Your task to perform on an android device: Open the Play Movies app and select the watchlist tab. Image 0: 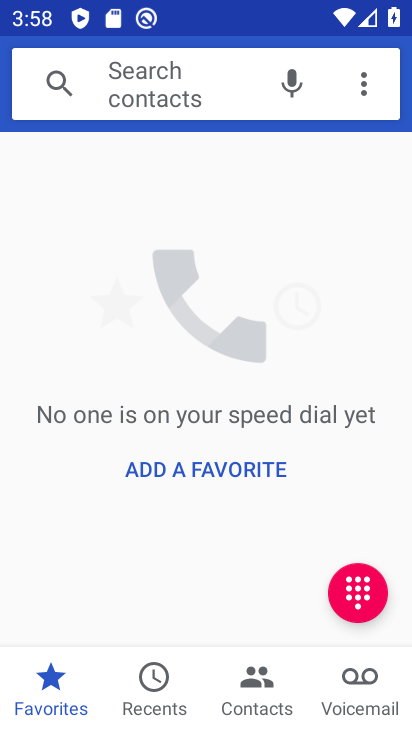
Step 0: press home button
Your task to perform on an android device: Open the Play Movies app and select the watchlist tab. Image 1: 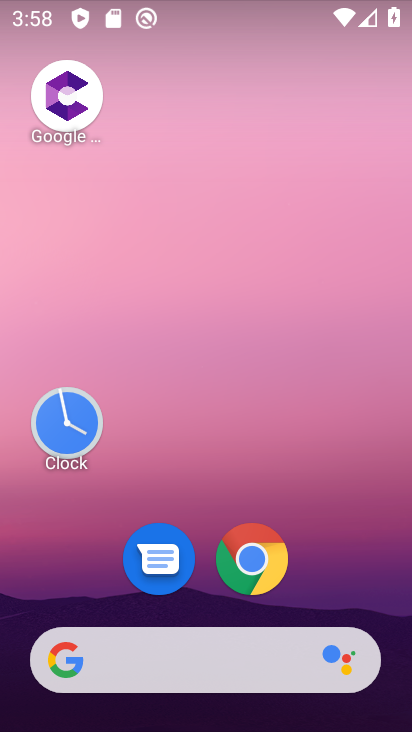
Step 1: drag from (327, 355) to (287, 131)
Your task to perform on an android device: Open the Play Movies app and select the watchlist tab. Image 2: 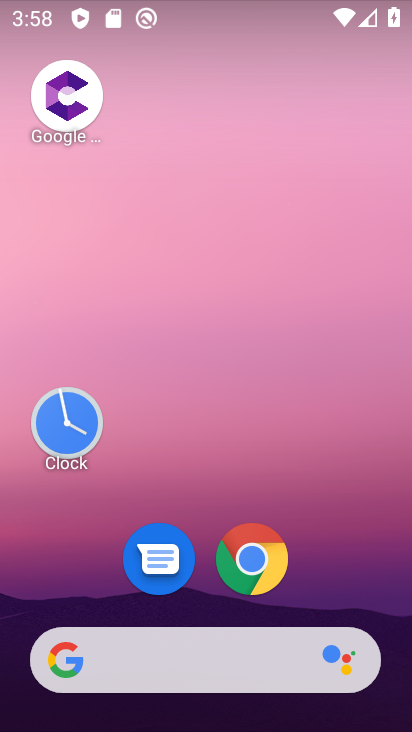
Step 2: drag from (354, 307) to (314, 33)
Your task to perform on an android device: Open the Play Movies app and select the watchlist tab. Image 3: 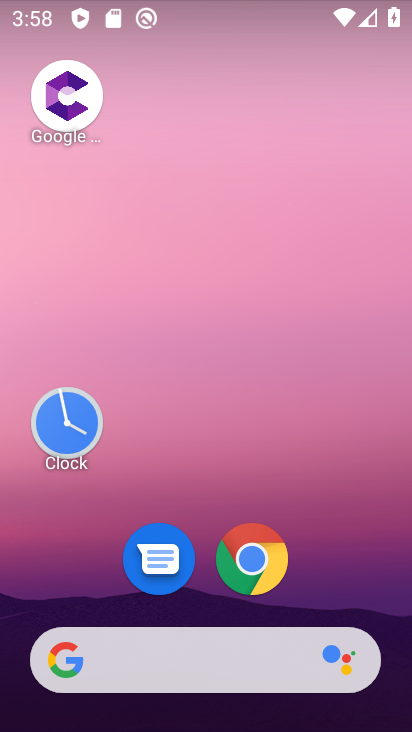
Step 3: drag from (316, 286) to (283, 39)
Your task to perform on an android device: Open the Play Movies app and select the watchlist tab. Image 4: 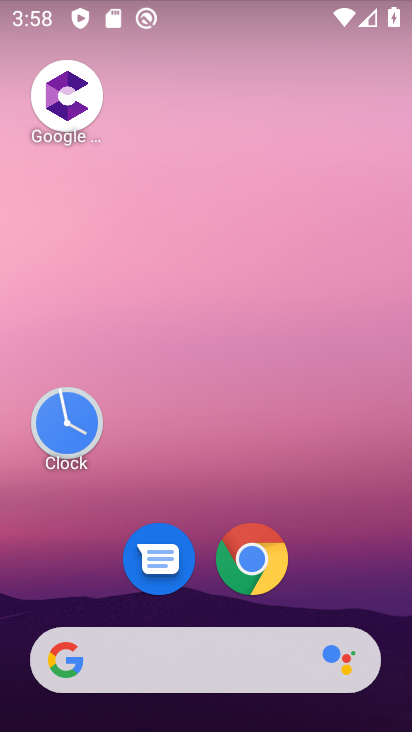
Step 4: drag from (366, 428) to (330, 85)
Your task to perform on an android device: Open the Play Movies app and select the watchlist tab. Image 5: 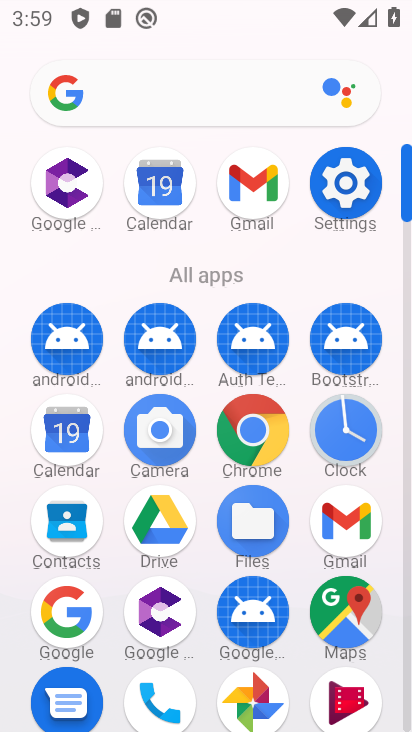
Step 5: click (336, 694)
Your task to perform on an android device: Open the Play Movies app and select the watchlist tab. Image 6: 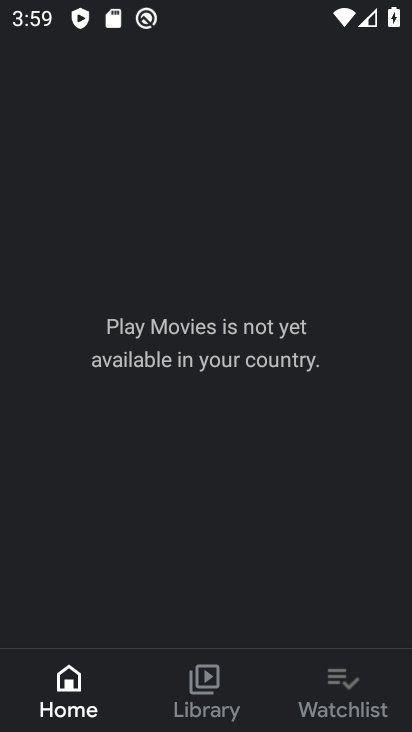
Step 6: click (343, 692)
Your task to perform on an android device: Open the Play Movies app and select the watchlist tab. Image 7: 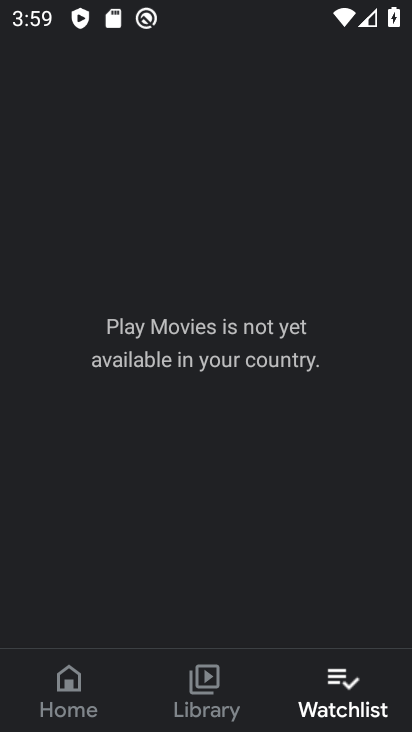
Step 7: task complete